Your task to perform on an android device: create a new album in the google photos Image 0: 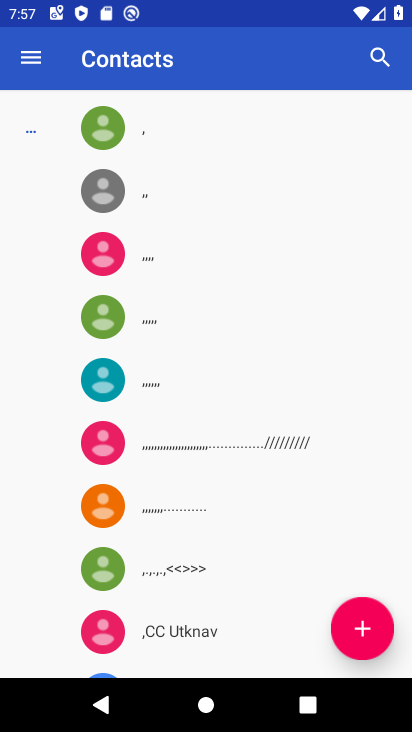
Step 0: press home button
Your task to perform on an android device: create a new album in the google photos Image 1: 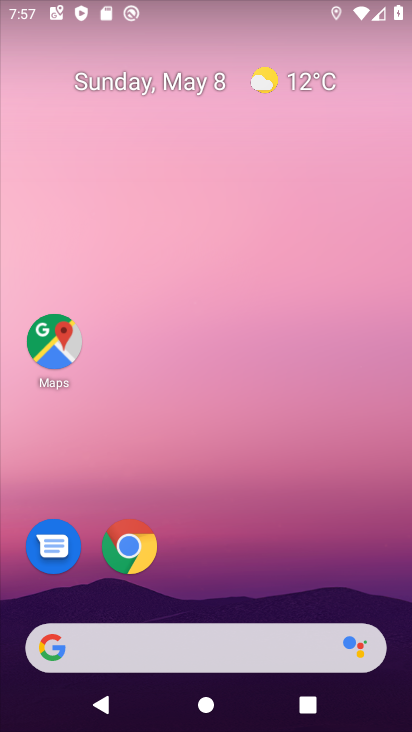
Step 1: drag from (407, 376) to (403, 309)
Your task to perform on an android device: create a new album in the google photos Image 2: 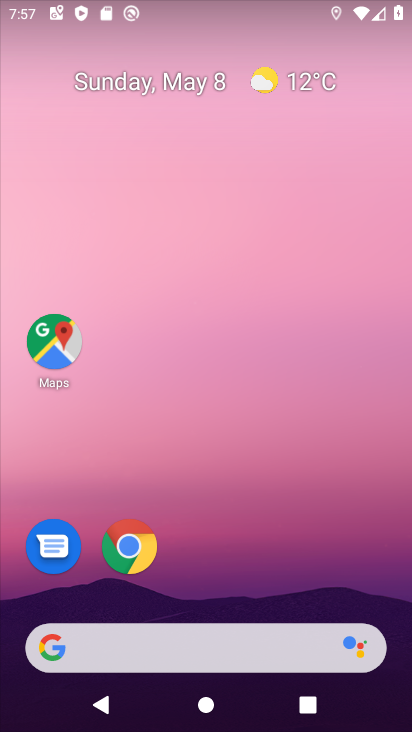
Step 2: drag from (394, 511) to (322, 133)
Your task to perform on an android device: create a new album in the google photos Image 3: 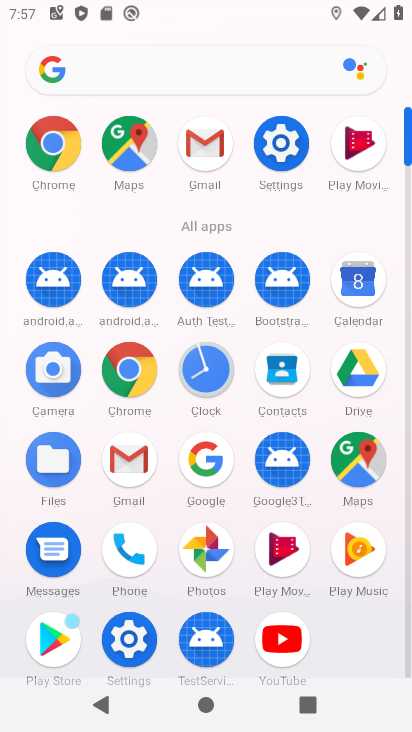
Step 3: click (196, 556)
Your task to perform on an android device: create a new album in the google photos Image 4: 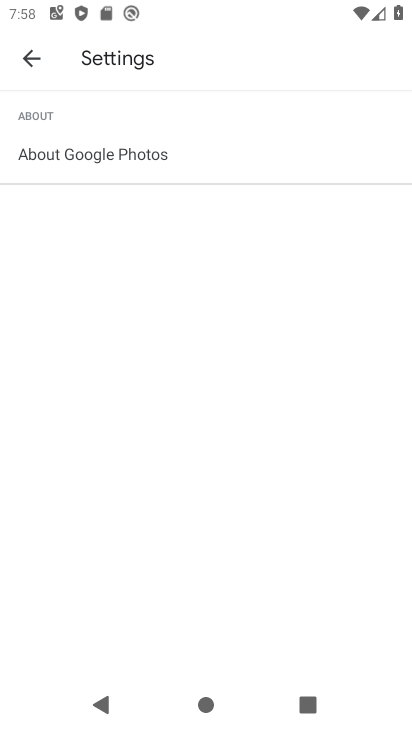
Step 4: click (33, 56)
Your task to perform on an android device: create a new album in the google photos Image 5: 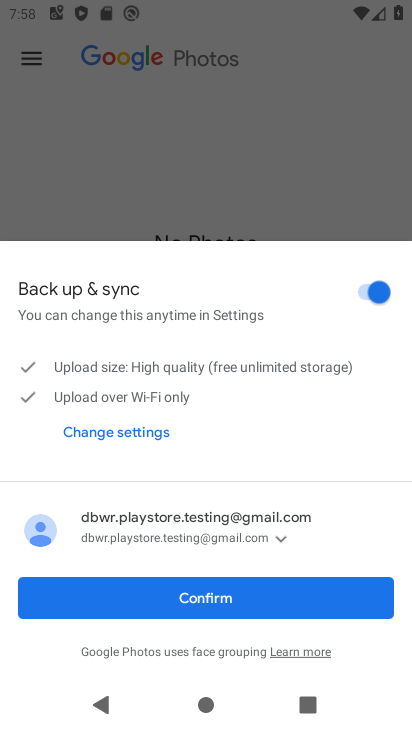
Step 5: click (260, 600)
Your task to perform on an android device: create a new album in the google photos Image 6: 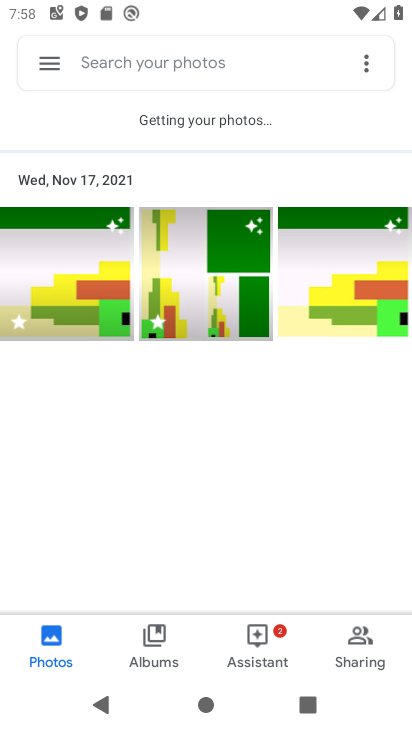
Step 6: click (367, 59)
Your task to perform on an android device: create a new album in the google photos Image 7: 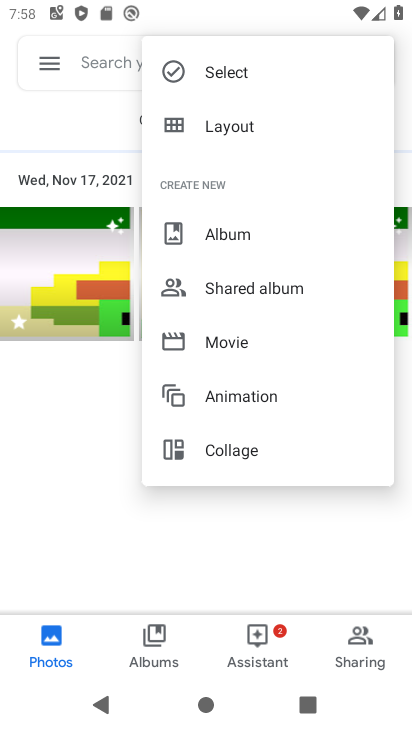
Step 7: click (223, 230)
Your task to perform on an android device: create a new album in the google photos Image 8: 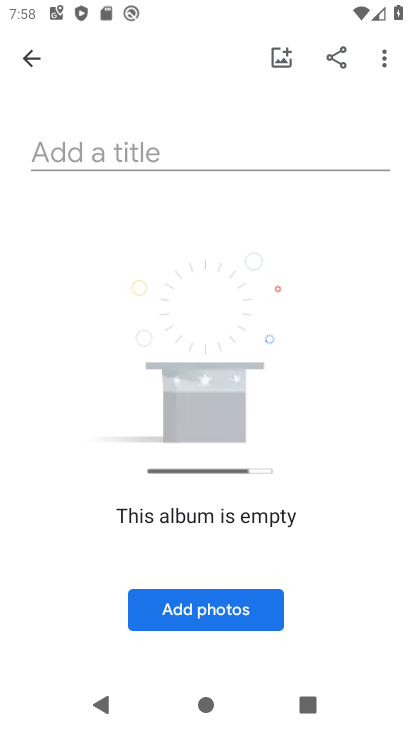
Step 8: click (123, 156)
Your task to perform on an android device: create a new album in the google photos Image 9: 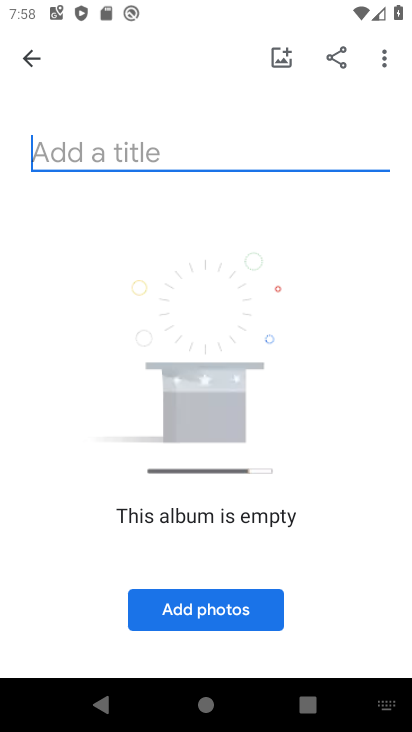
Step 9: type "bdchgdhchcjkl"
Your task to perform on an android device: create a new album in the google photos Image 10: 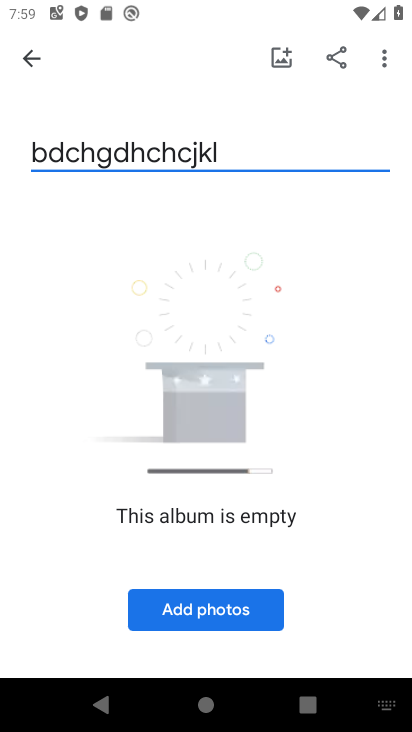
Step 10: click (207, 600)
Your task to perform on an android device: create a new album in the google photos Image 11: 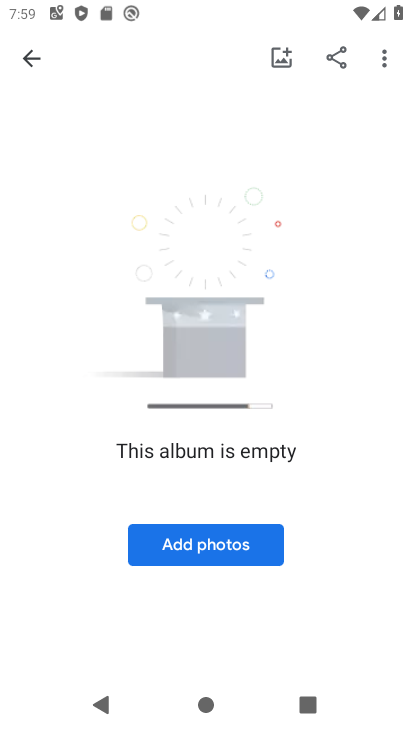
Step 11: click (227, 542)
Your task to perform on an android device: create a new album in the google photos Image 12: 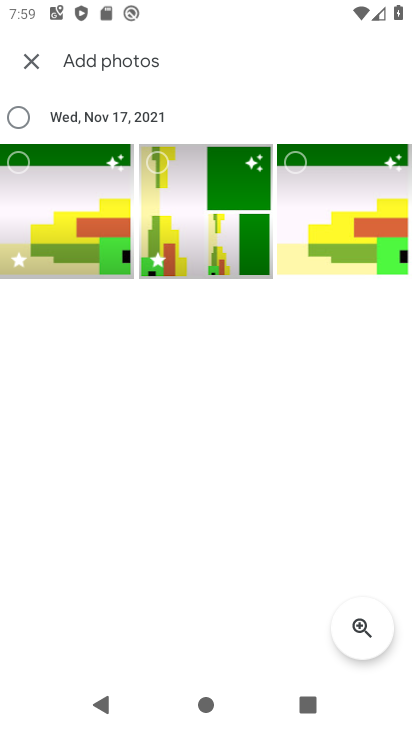
Step 12: click (10, 165)
Your task to perform on an android device: create a new album in the google photos Image 13: 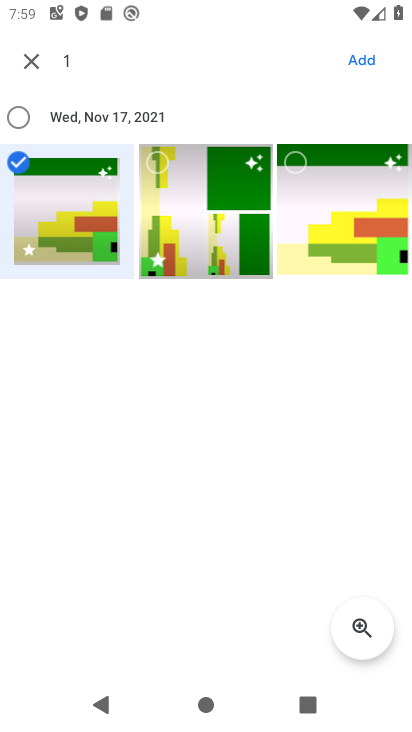
Step 13: click (150, 163)
Your task to perform on an android device: create a new album in the google photos Image 14: 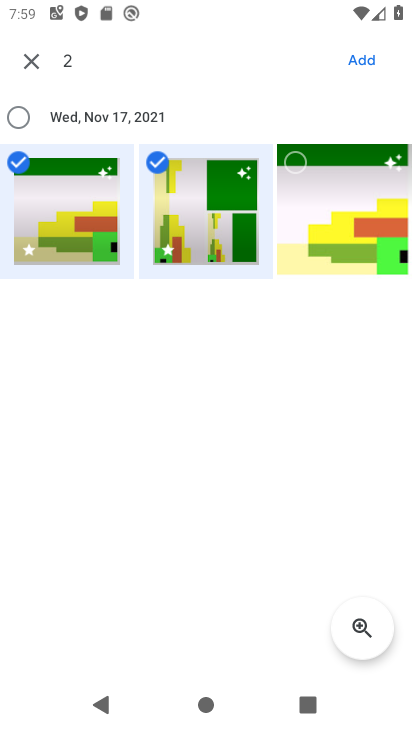
Step 14: click (364, 50)
Your task to perform on an android device: create a new album in the google photos Image 15: 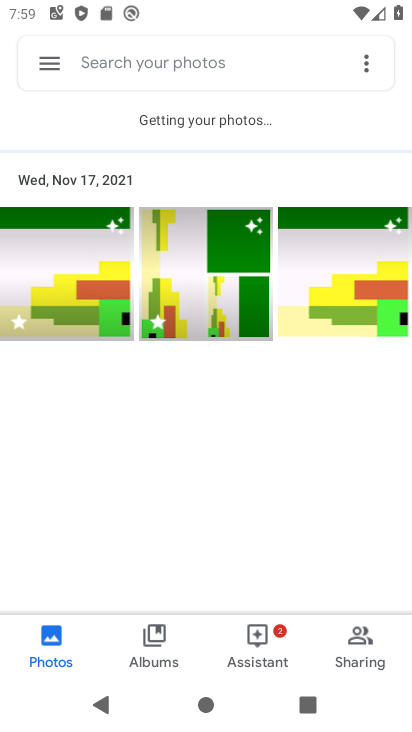
Step 15: task complete